Your task to perform on an android device: turn vacation reply on in the gmail app Image 0: 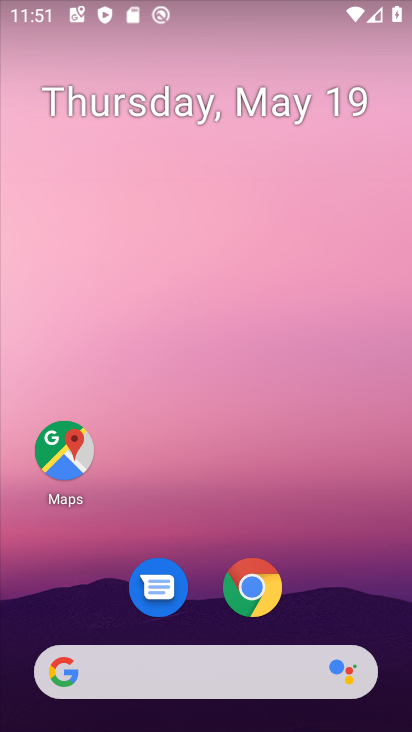
Step 0: drag from (176, 689) to (101, 305)
Your task to perform on an android device: turn vacation reply on in the gmail app Image 1: 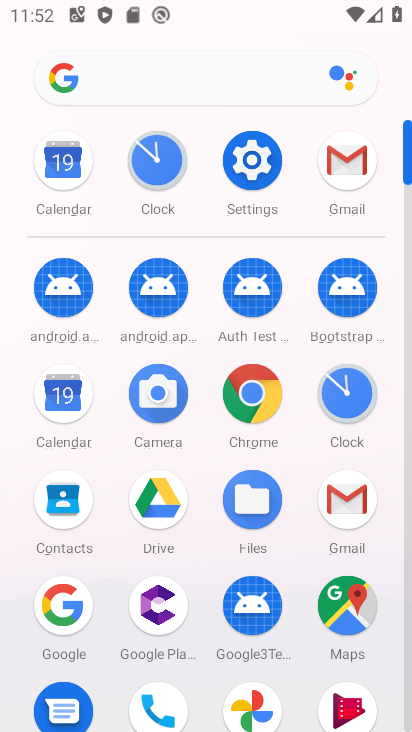
Step 1: click (344, 501)
Your task to perform on an android device: turn vacation reply on in the gmail app Image 2: 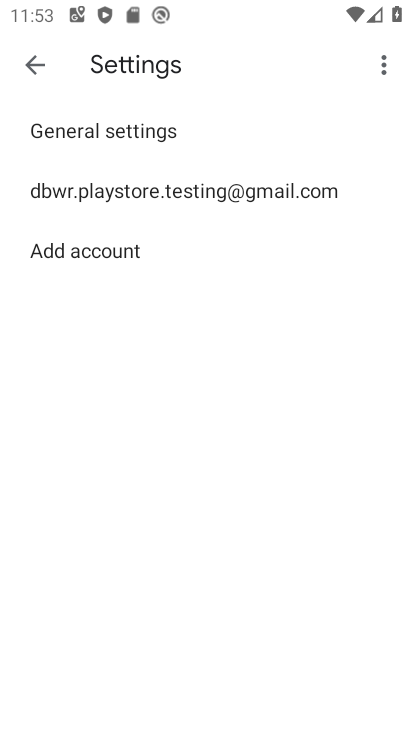
Step 2: click (119, 197)
Your task to perform on an android device: turn vacation reply on in the gmail app Image 3: 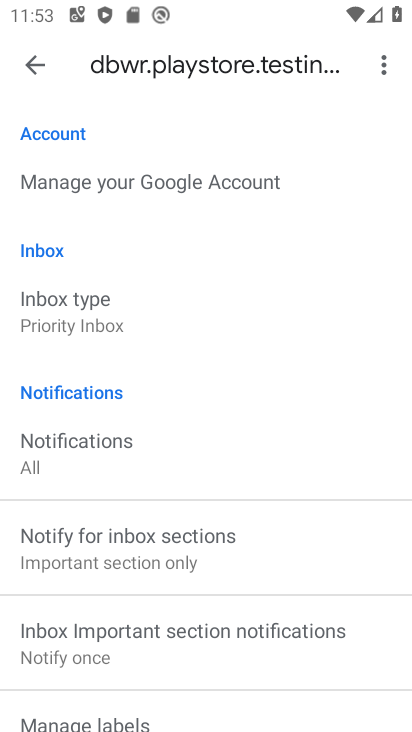
Step 3: drag from (134, 625) to (107, 14)
Your task to perform on an android device: turn vacation reply on in the gmail app Image 4: 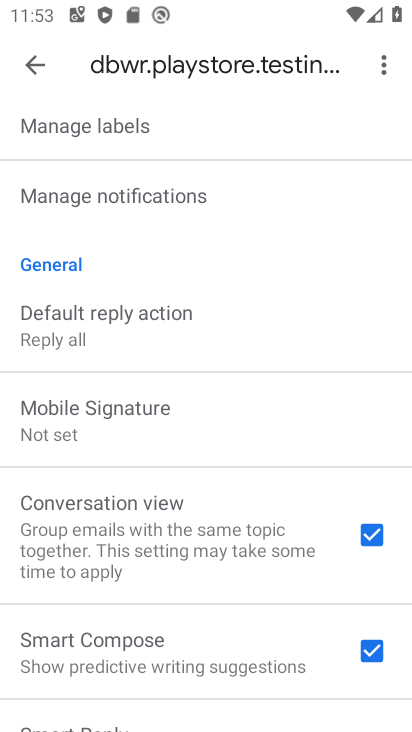
Step 4: drag from (154, 611) to (131, 9)
Your task to perform on an android device: turn vacation reply on in the gmail app Image 5: 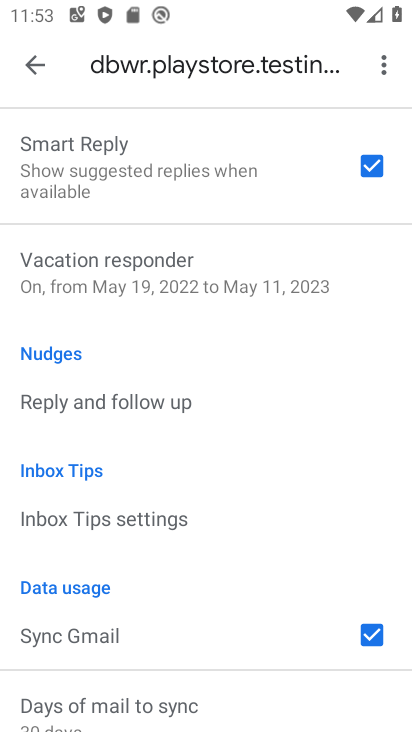
Step 5: click (126, 289)
Your task to perform on an android device: turn vacation reply on in the gmail app Image 6: 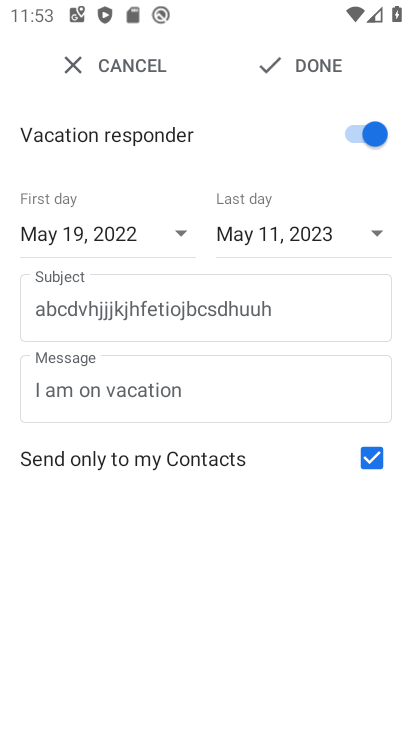
Step 6: click (314, 57)
Your task to perform on an android device: turn vacation reply on in the gmail app Image 7: 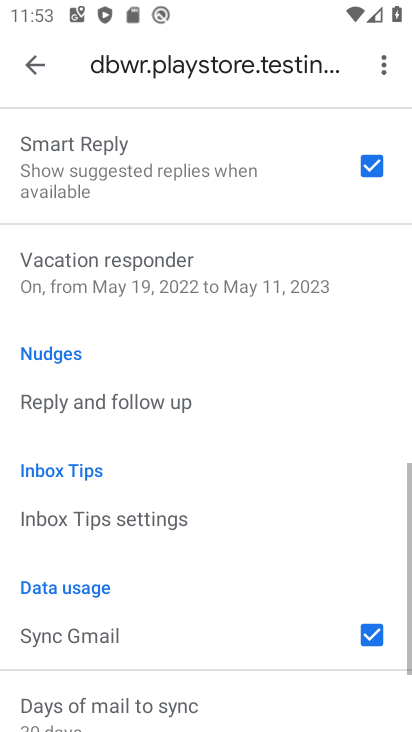
Step 7: task complete